Your task to perform on an android device: turn off location history Image 0: 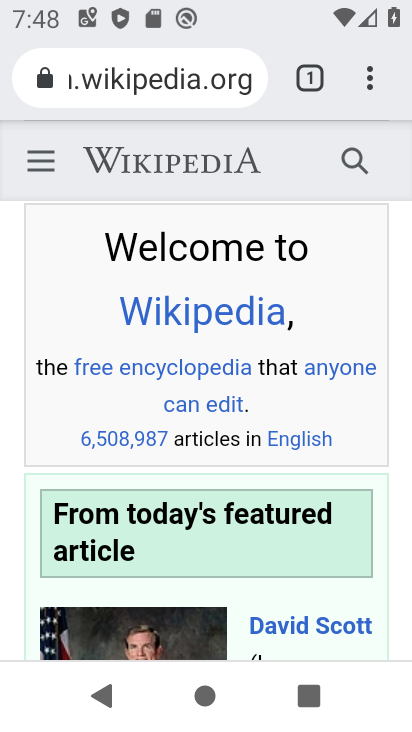
Step 0: press back button
Your task to perform on an android device: turn off location history Image 1: 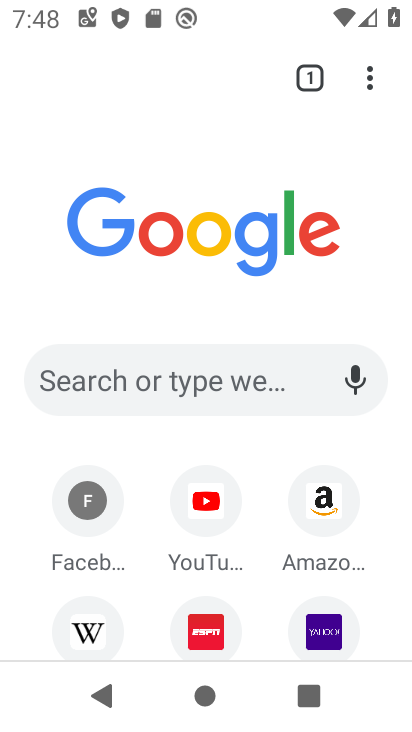
Step 1: press back button
Your task to perform on an android device: turn off location history Image 2: 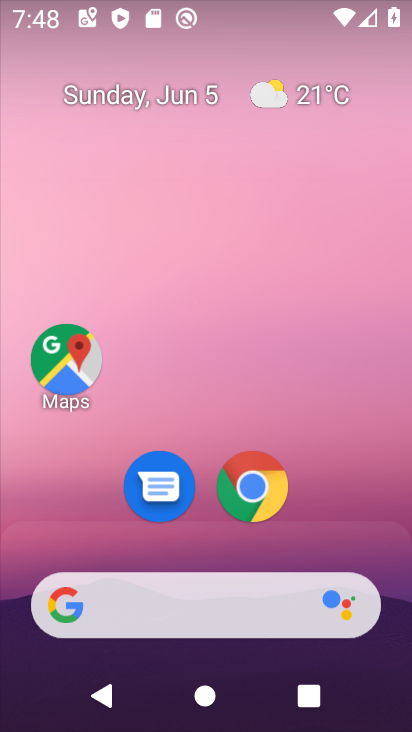
Step 2: drag from (205, 489) to (253, 97)
Your task to perform on an android device: turn off location history Image 3: 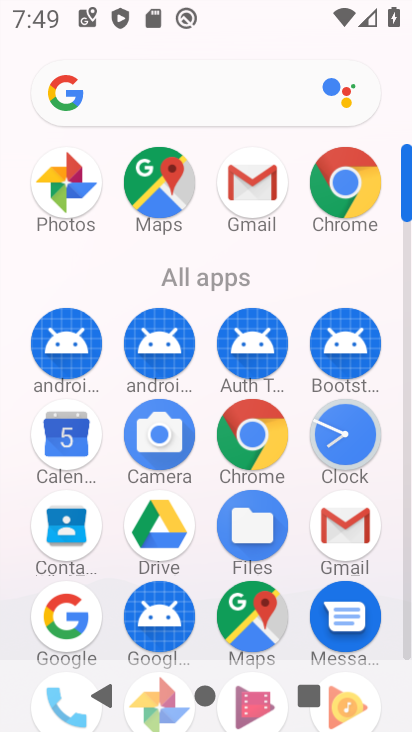
Step 3: drag from (197, 553) to (240, 107)
Your task to perform on an android device: turn off location history Image 4: 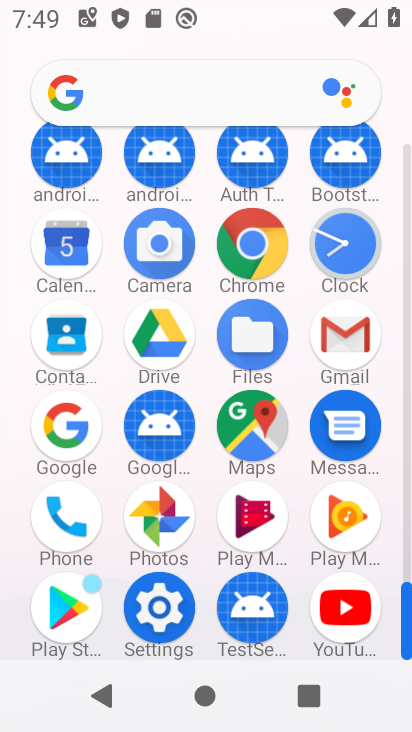
Step 4: click (142, 615)
Your task to perform on an android device: turn off location history Image 5: 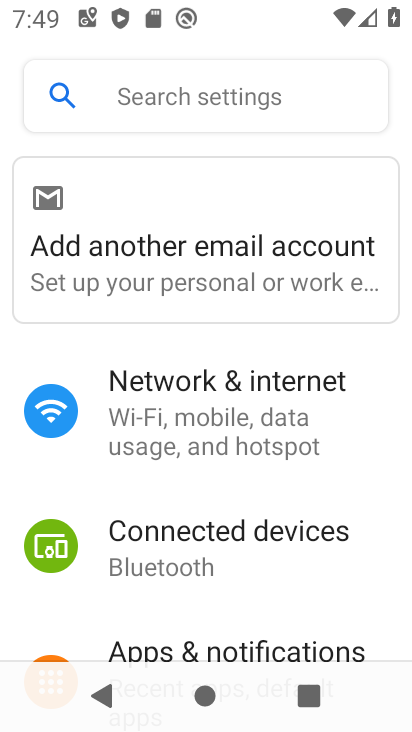
Step 5: drag from (174, 565) to (292, 76)
Your task to perform on an android device: turn off location history Image 6: 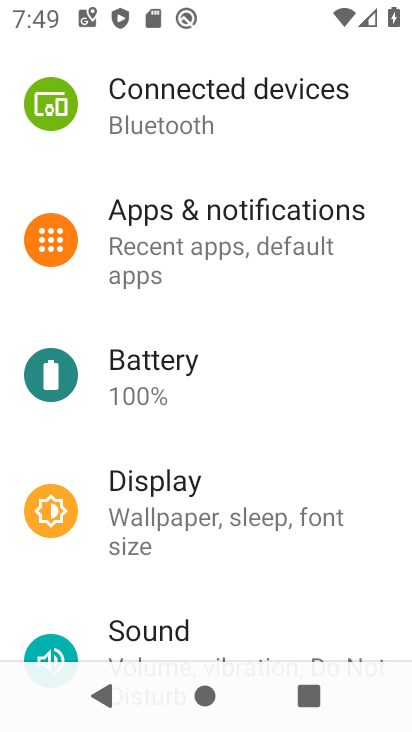
Step 6: drag from (156, 585) to (260, 127)
Your task to perform on an android device: turn off location history Image 7: 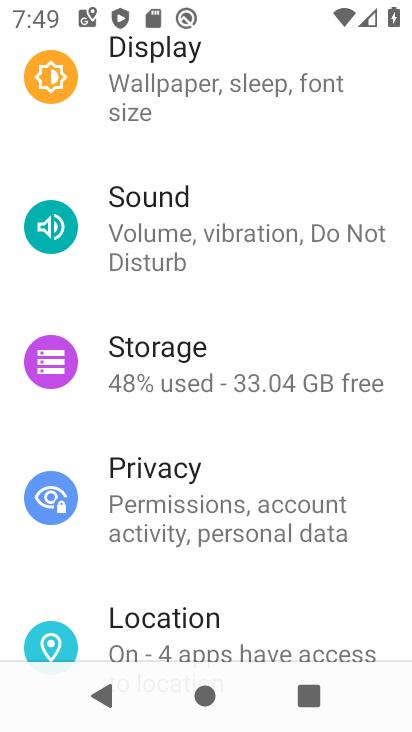
Step 7: click (185, 631)
Your task to perform on an android device: turn off location history Image 8: 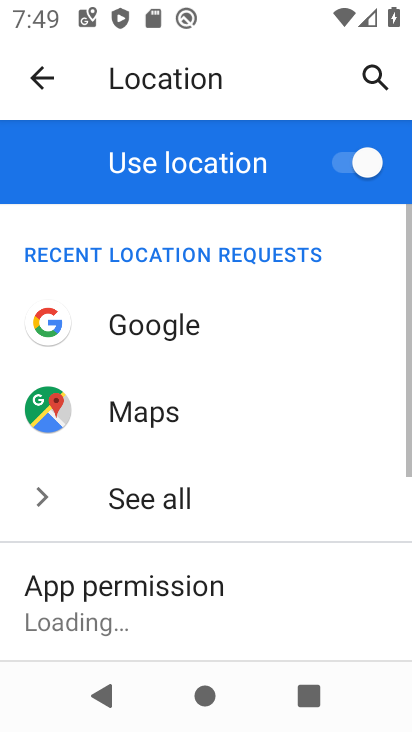
Step 8: drag from (181, 619) to (255, 76)
Your task to perform on an android device: turn off location history Image 9: 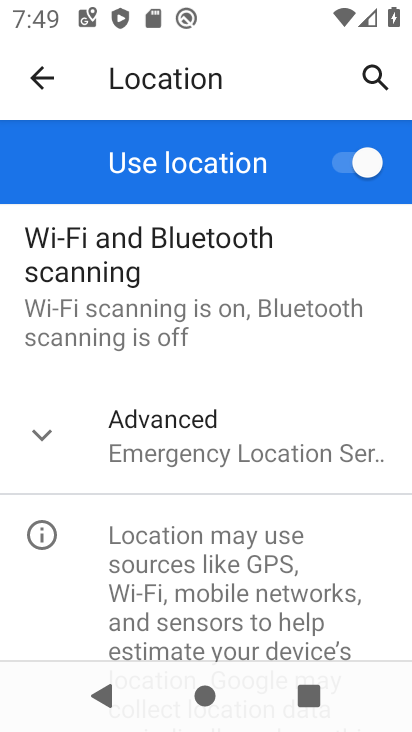
Step 9: click (181, 442)
Your task to perform on an android device: turn off location history Image 10: 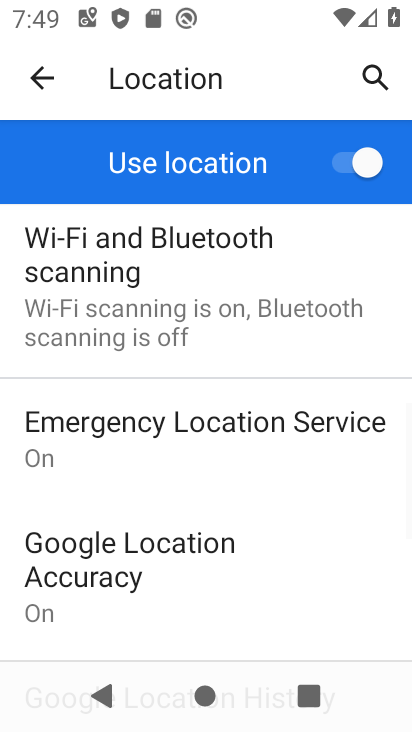
Step 10: drag from (129, 558) to (222, 96)
Your task to perform on an android device: turn off location history Image 11: 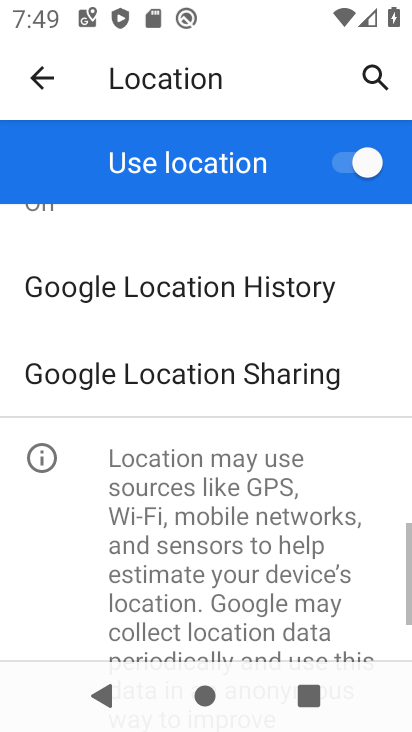
Step 11: click (264, 287)
Your task to perform on an android device: turn off location history Image 12: 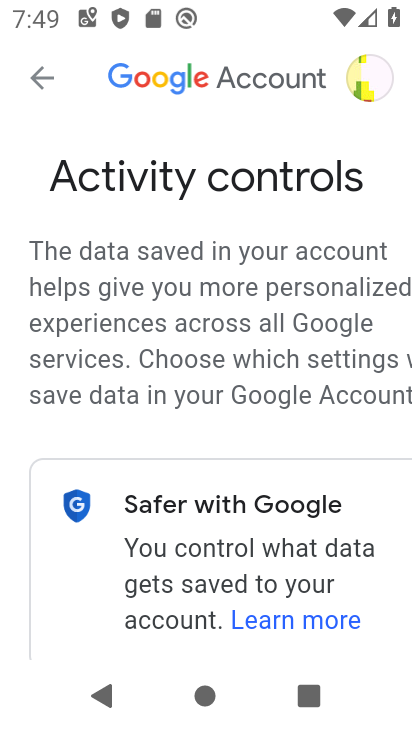
Step 12: drag from (214, 550) to (232, 103)
Your task to perform on an android device: turn off location history Image 13: 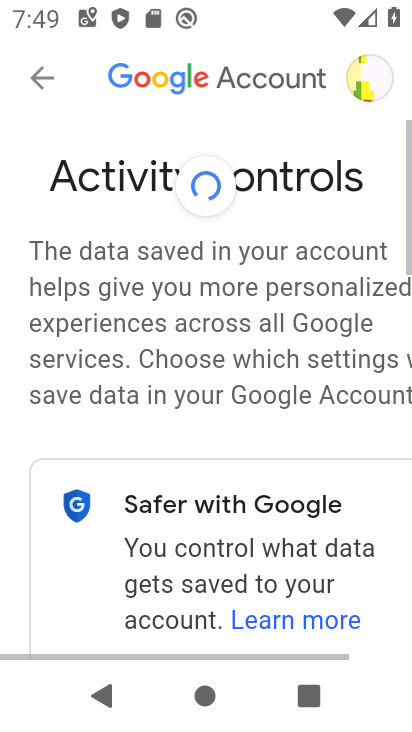
Step 13: drag from (151, 584) to (165, 228)
Your task to perform on an android device: turn off location history Image 14: 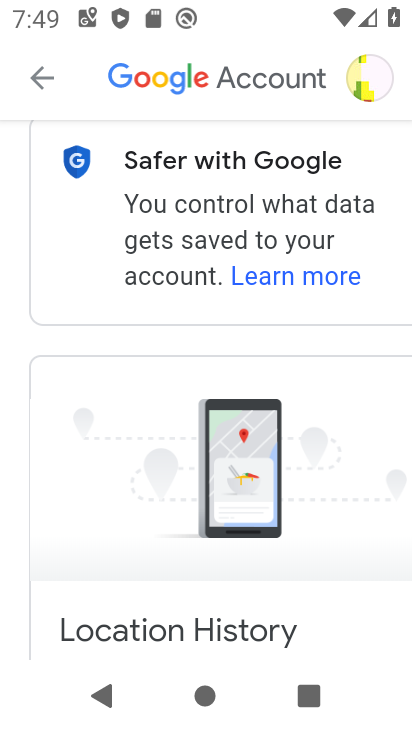
Step 14: drag from (188, 603) to (152, 157)
Your task to perform on an android device: turn off location history Image 15: 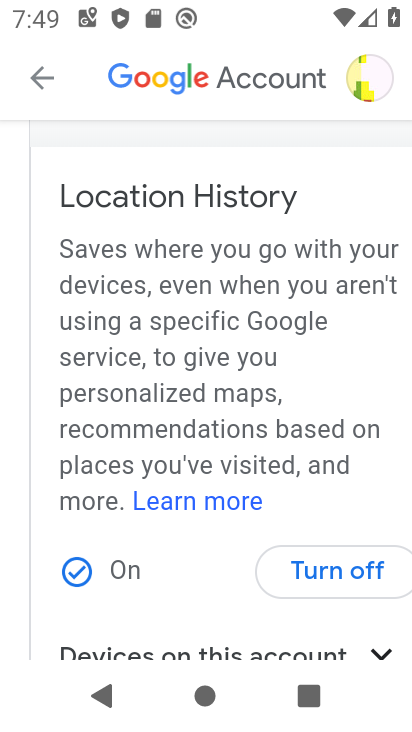
Step 15: click (321, 571)
Your task to perform on an android device: turn off location history Image 16: 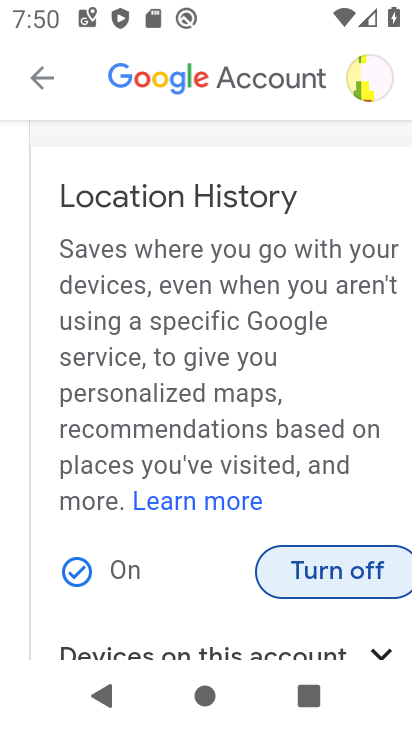
Step 16: click (329, 570)
Your task to perform on an android device: turn off location history Image 17: 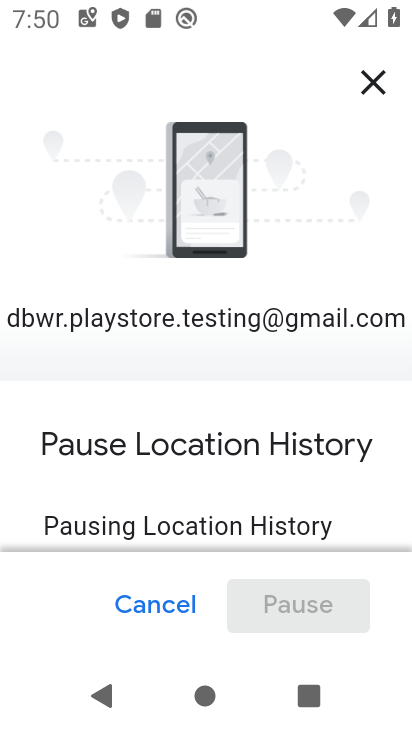
Step 17: drag from (179, 479) to (228, 76)
Your task to perform on an android device: turn off location history Image 18: 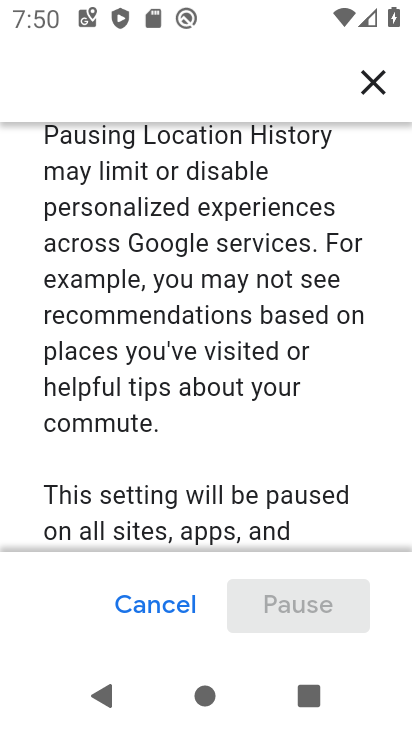
Step 18: drag from (194, 478) to (252, 18)
Your task to perform on an android device: turn off location history Image 19: 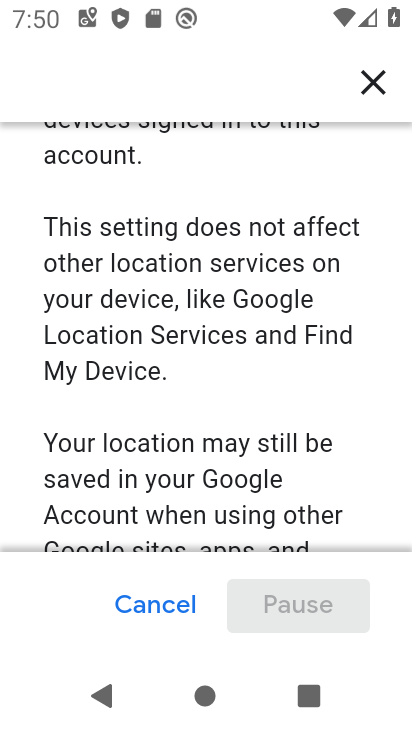
Step 19: drag from (213, 474) to (263, 91)
Your task to perform on an android device: turn off location history Image 20: 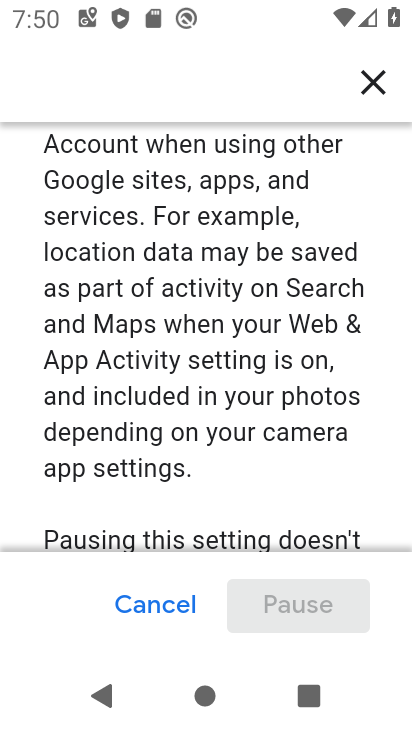
Step 20: drag from (216, 517) to (260, 10)
Your task to perform on an android device: turn off location history Image 21: 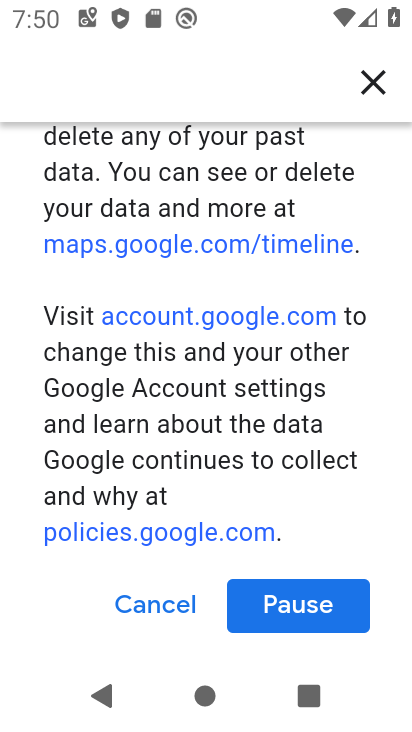
Step 21: drag from (213, 512) to (267, 68)
Your task to perform on an android device: turn off location history Image 22: 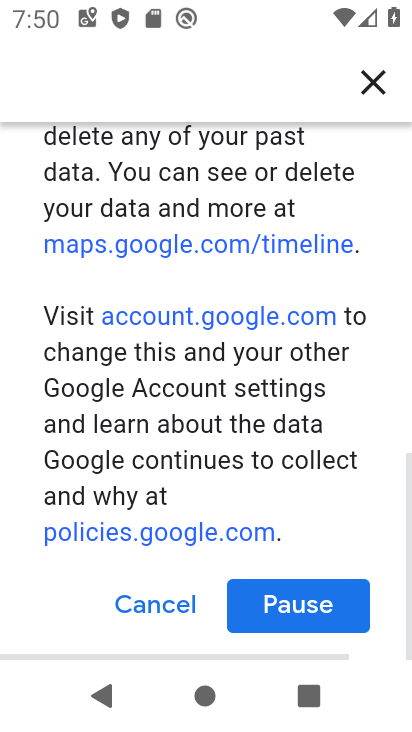
Step 22: click (280, 610)
Your task to perform on an android device: turn off location history Image 23: 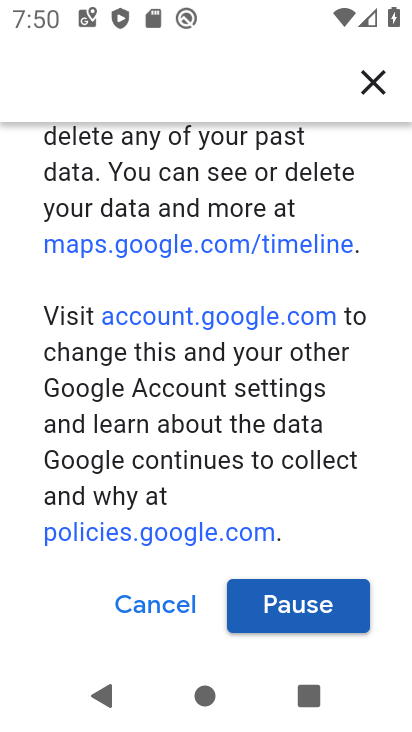
Step 23: click (302, 620)
Your task to perform on an android device: turn off location history Image 24: 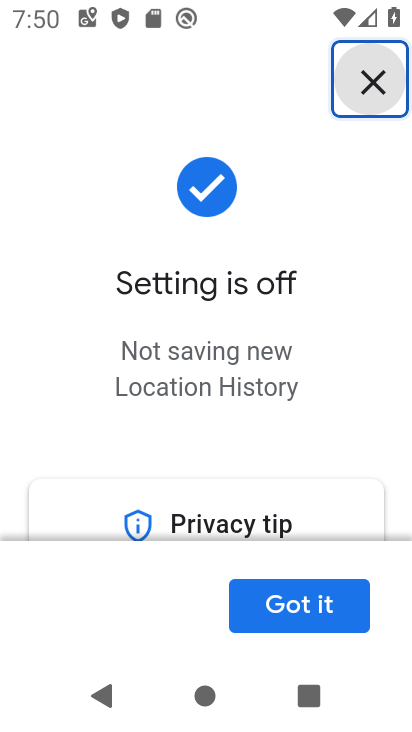
Step 24: click (320, 614)
Your task to perform on an android device: turn off location history Image 25: 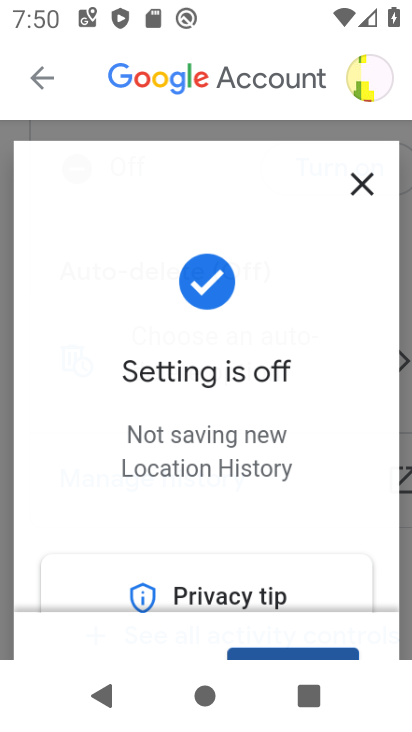
Step 25: click (289, 638)
Your task to perform on an android device: turn off location history Image 26: 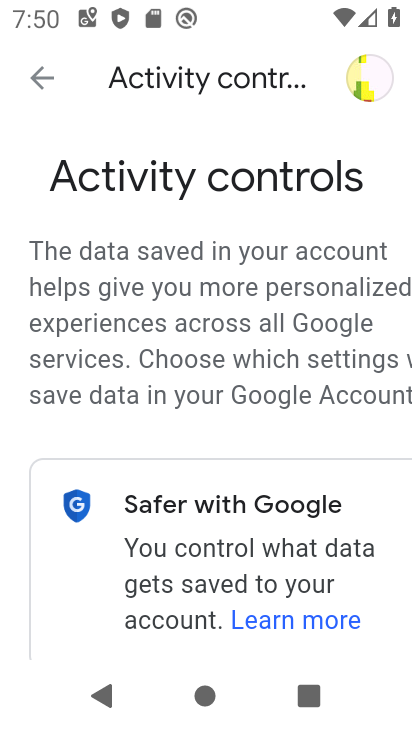
Step 26: task complete